Your task to perform on an android device: Check the news Image 0: 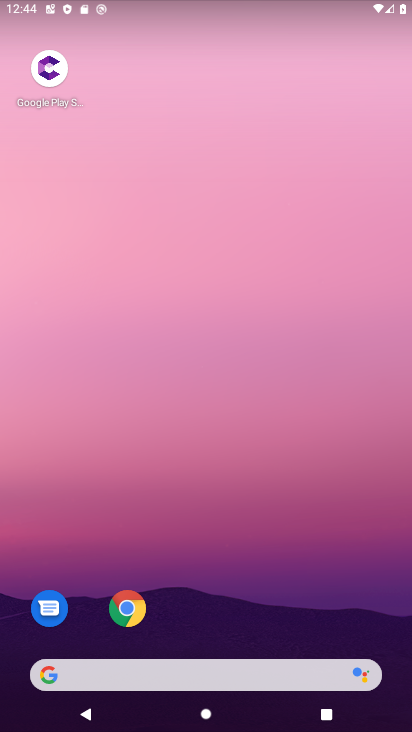
Step 0: drag from (227, 611) to (251, 48)
Your task to perform on an android device: Check the news Image 1: 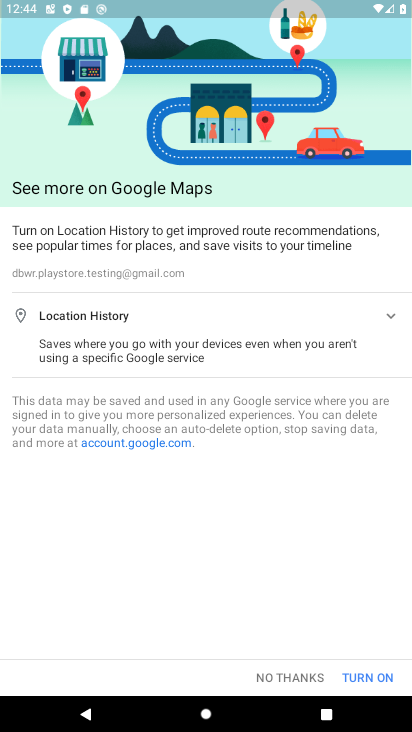
Step 1: press home button
Your task to perform on an android device: Check the news Image 2: 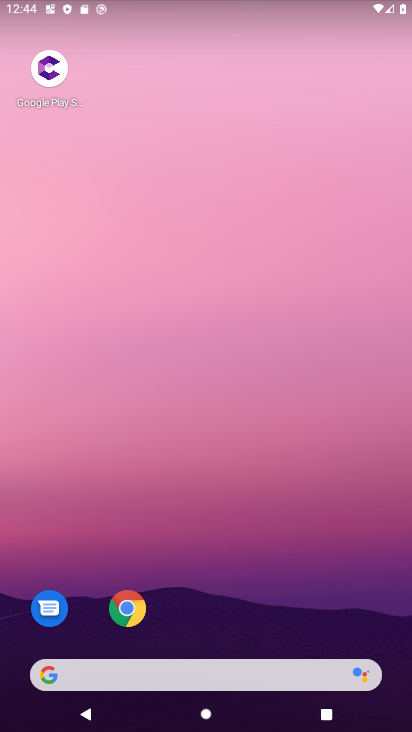
Step 2: drag from (229, 613) to (295, 80)
Your task to perform on an android device: Check the news Image 3: 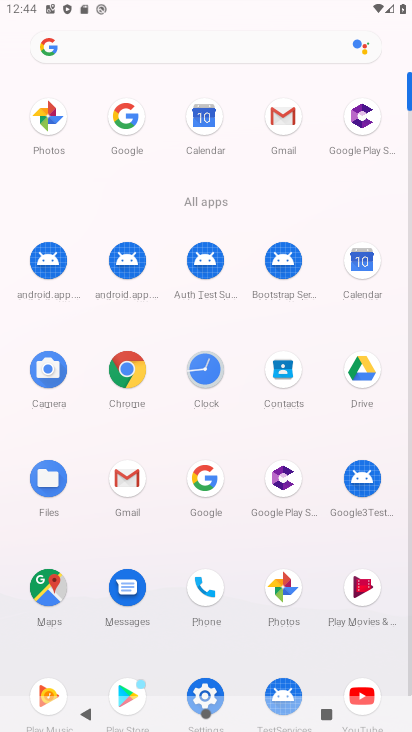
Step 3: click (124, 116)
Your task to perform on an android device: Check the news Image 4: 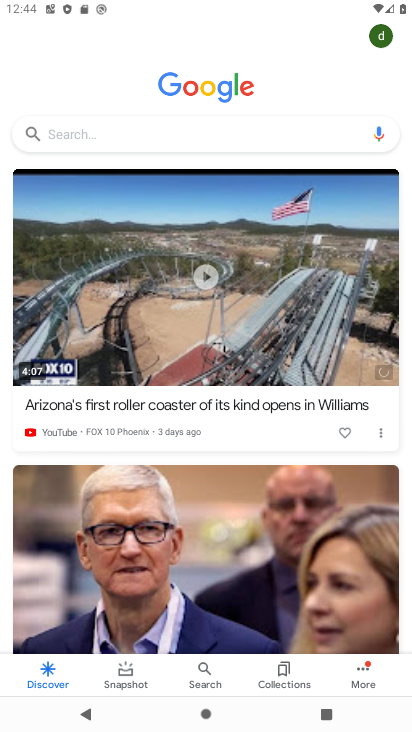
Step 4: click (207, 132)
Your task to perform on an android device: Check the news Image 5: 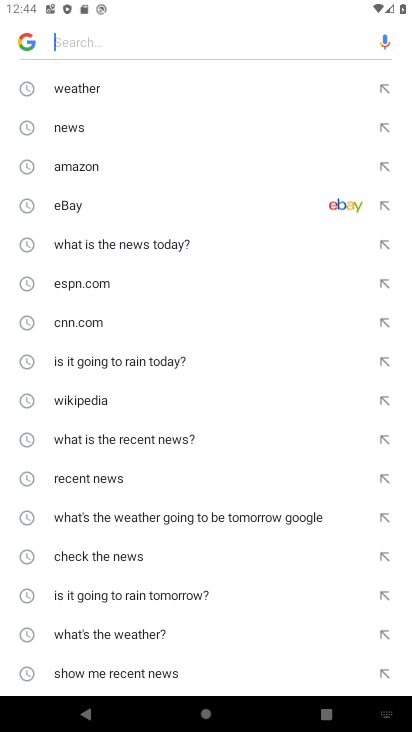
Step 5: type "check the news"
Your task to perform on an android device: Check the news Image 6: 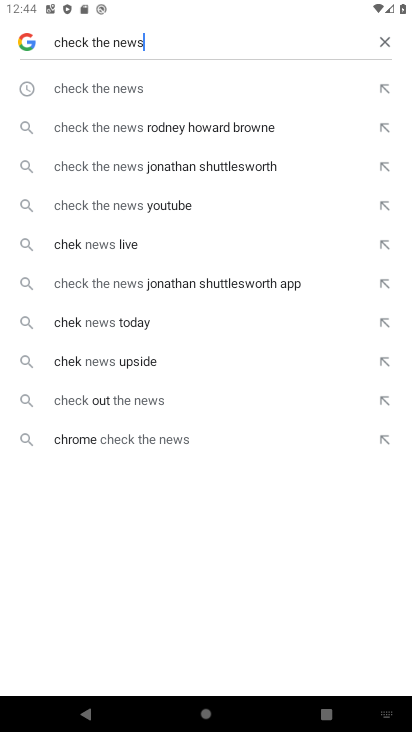
Step 6: click (114, 89)
Your task to perform on an android device: Check the news Image 7: 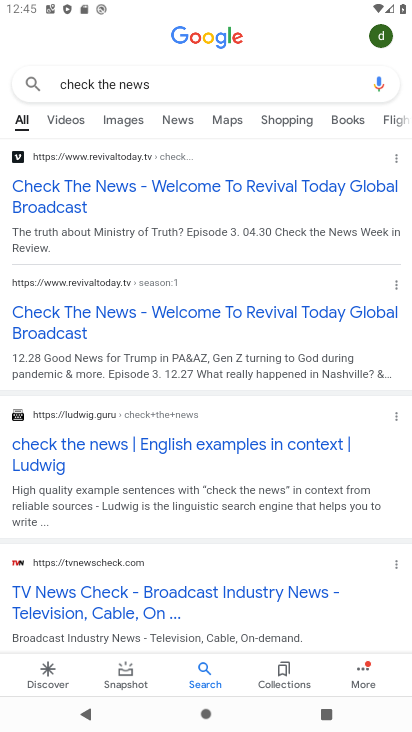
Step 7: task complete